Your task to perform on an android device: check data usage Image 0: 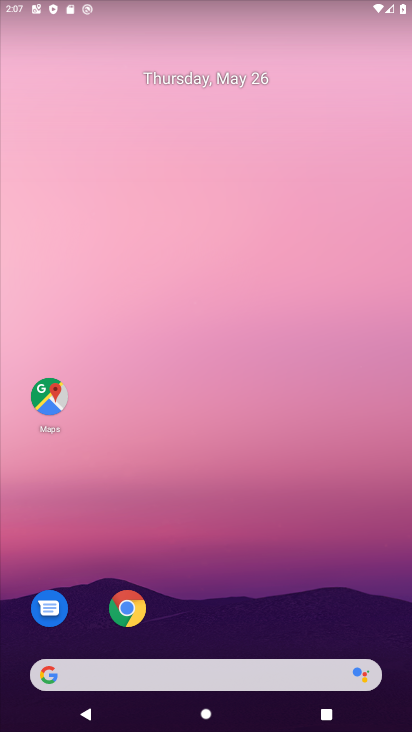
Step 0: drag from (335, 589) to (408, 151)
Your task to perform on an android device: check data usage Image 1: 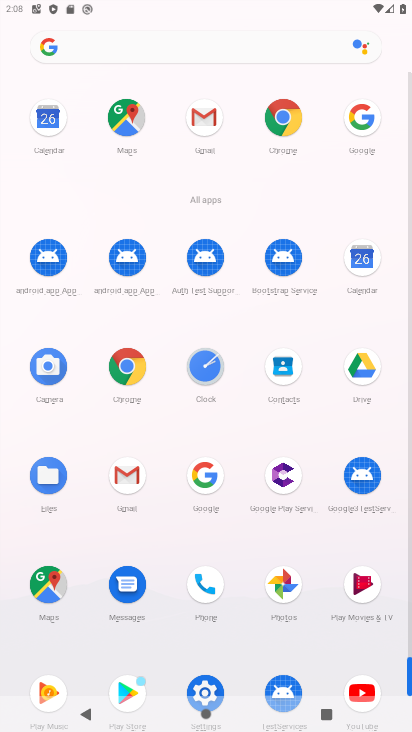
Step 1: drag from (234, 615) to (228, 216)
Your task to perform on an android device: check data usage Image 2: 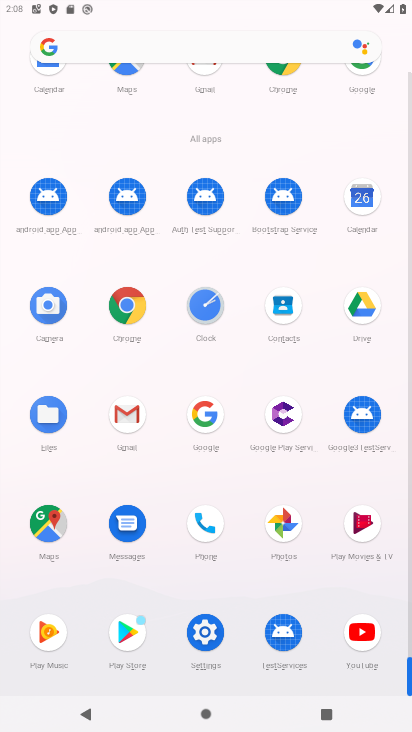
Step 2: click (205, 630)
Your task to perform on an android device: check data usage Image 3: 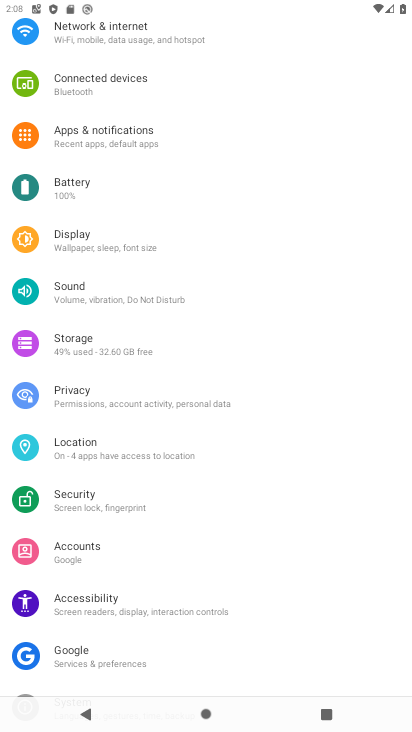
Step 3: drag from (226, 113) to (219, 587)
Your task to perform on an android device: check data usage Image 4: 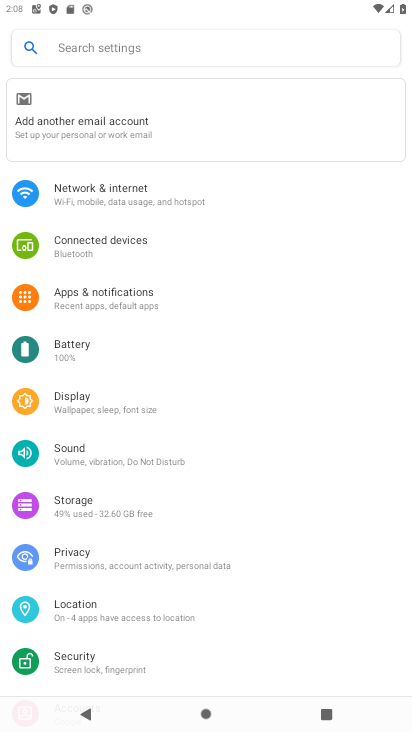
Step 4: click (119, 192)
Your task to perform on an android device: check data usage Image 5: 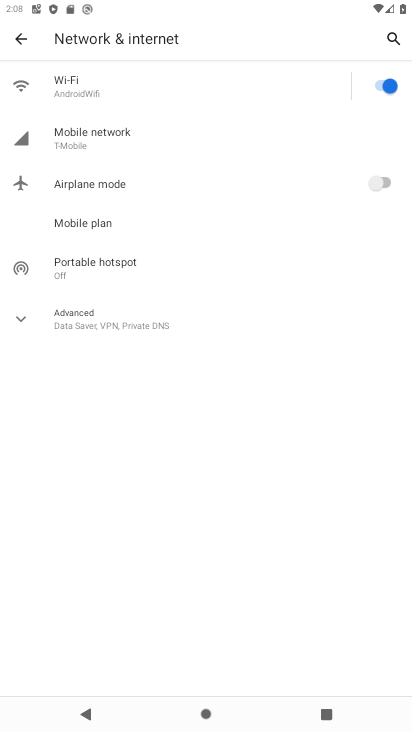
Step 5: click (81, 144)
Your task to perform on an android device: check data usage Image 6: 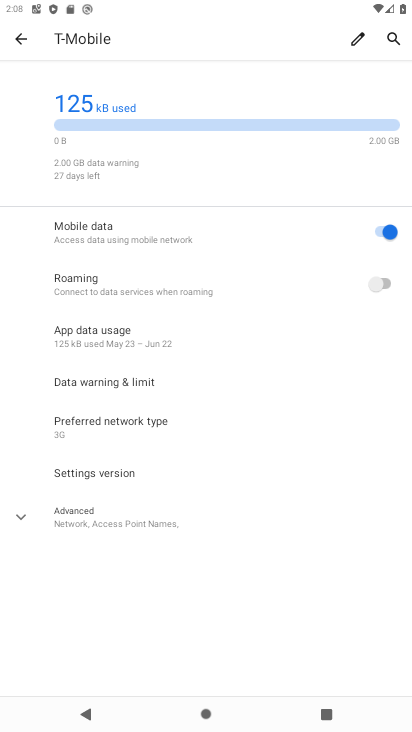
Step 6: task complete